Your task to perform on an android device: Clear the cart on bestbuy.com. Add "logitech g933" to the cart on bestbuy.com Image 0: 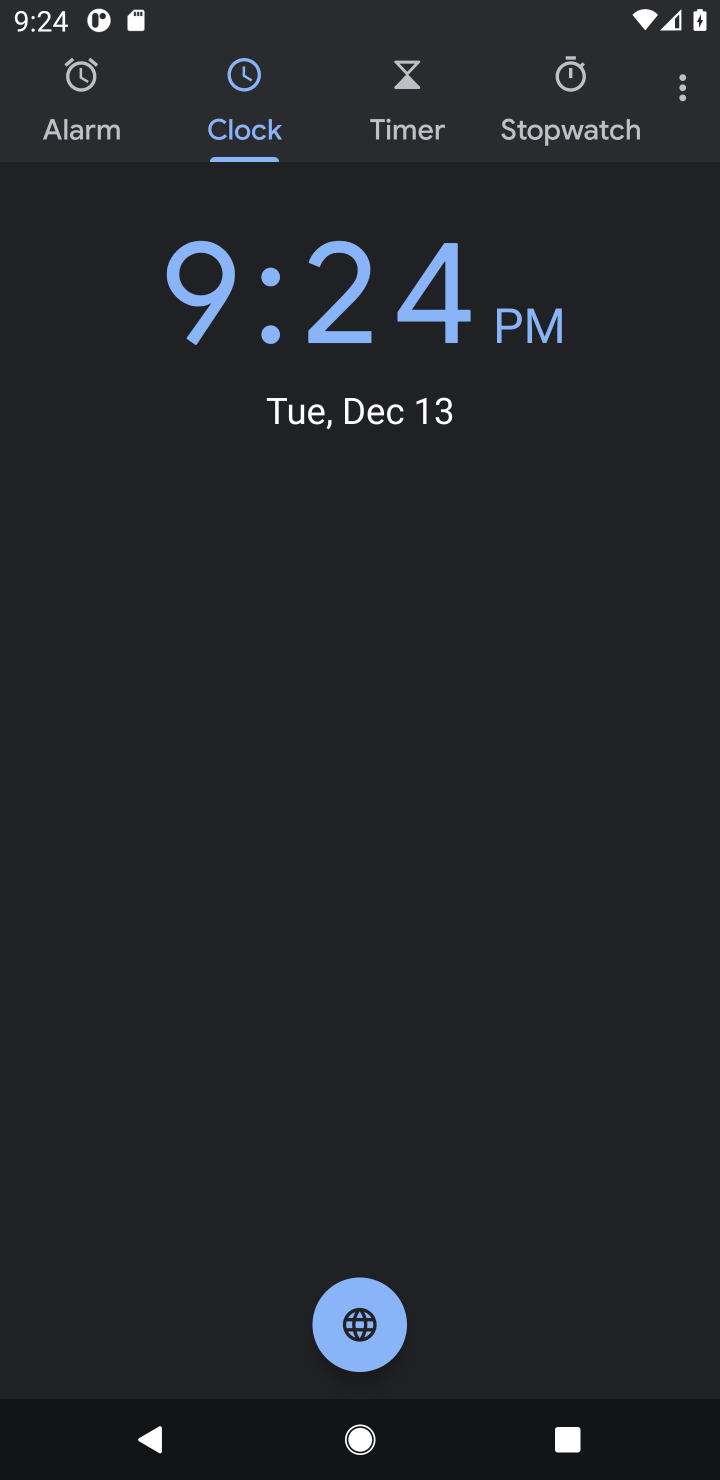
Step 0: press home button
Your task to perform on an android device: Clear the cart on bestbuy.com. Add "logitech g933" to the cart on bestbuy.com Image 1: 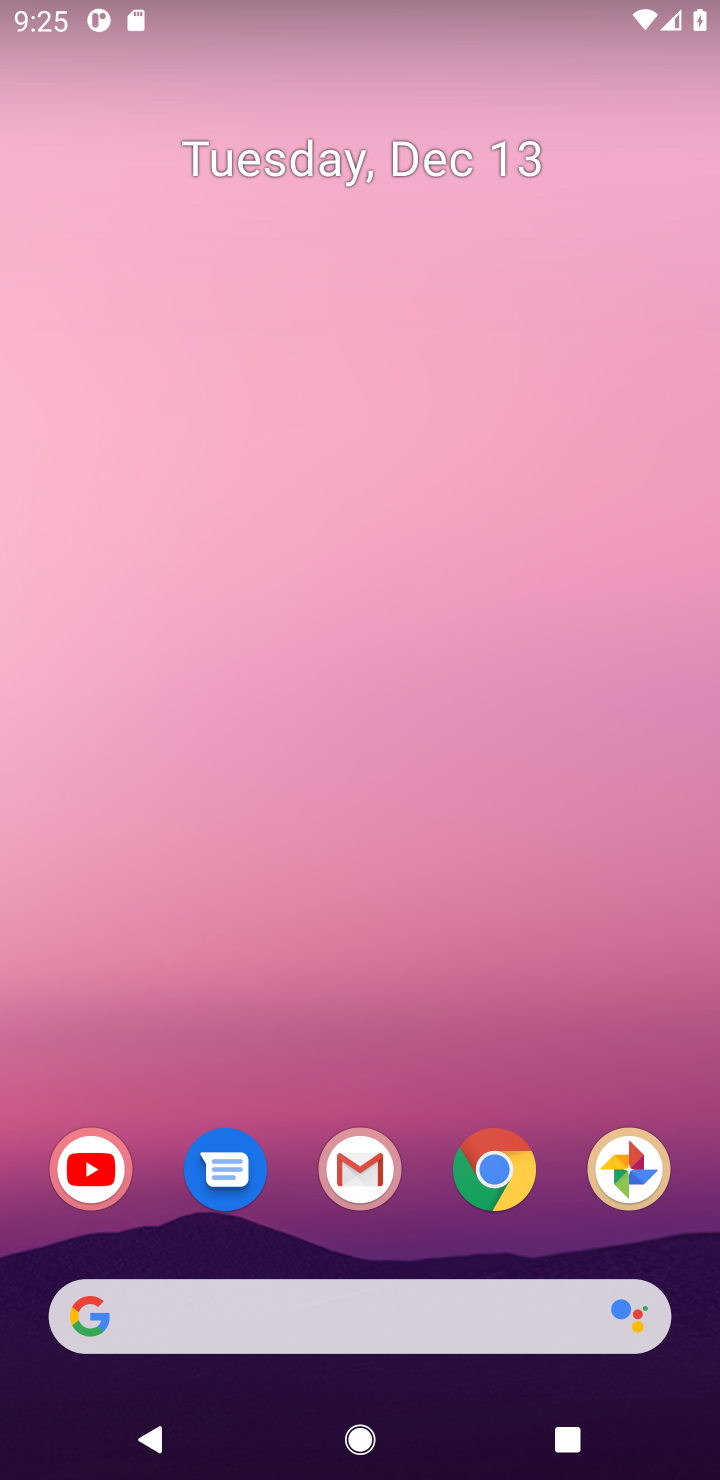
Step 1: click (509, 1167)
Your task to perform on an android device: Clear the cart on bestbuy.com. Add "logitech g933" to the cart on bestbuy.com Image 2: 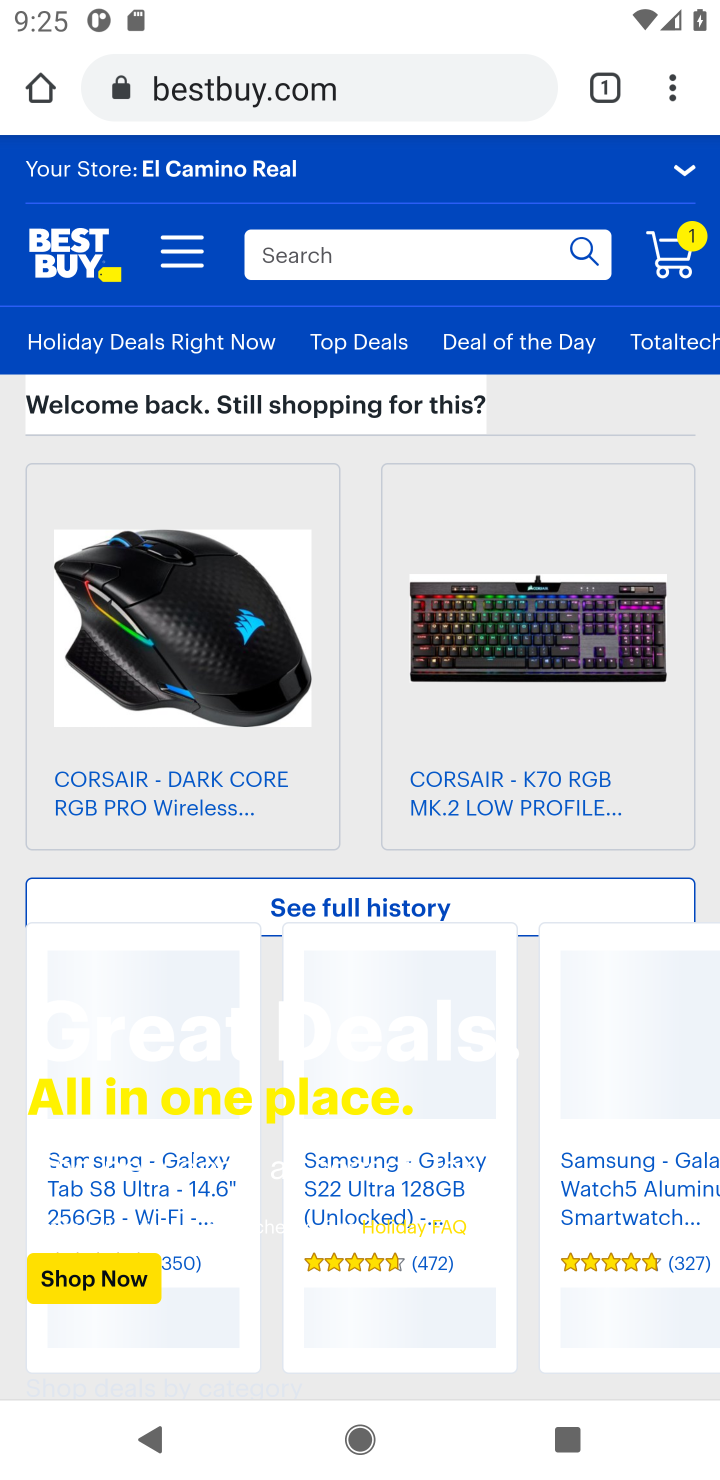
Step 2: click (324, 249)
Your task to perform on an android device: Clear the cart on bestbuy.com. Add "logitech g933" to the cart on bestbuy.com Image 3: 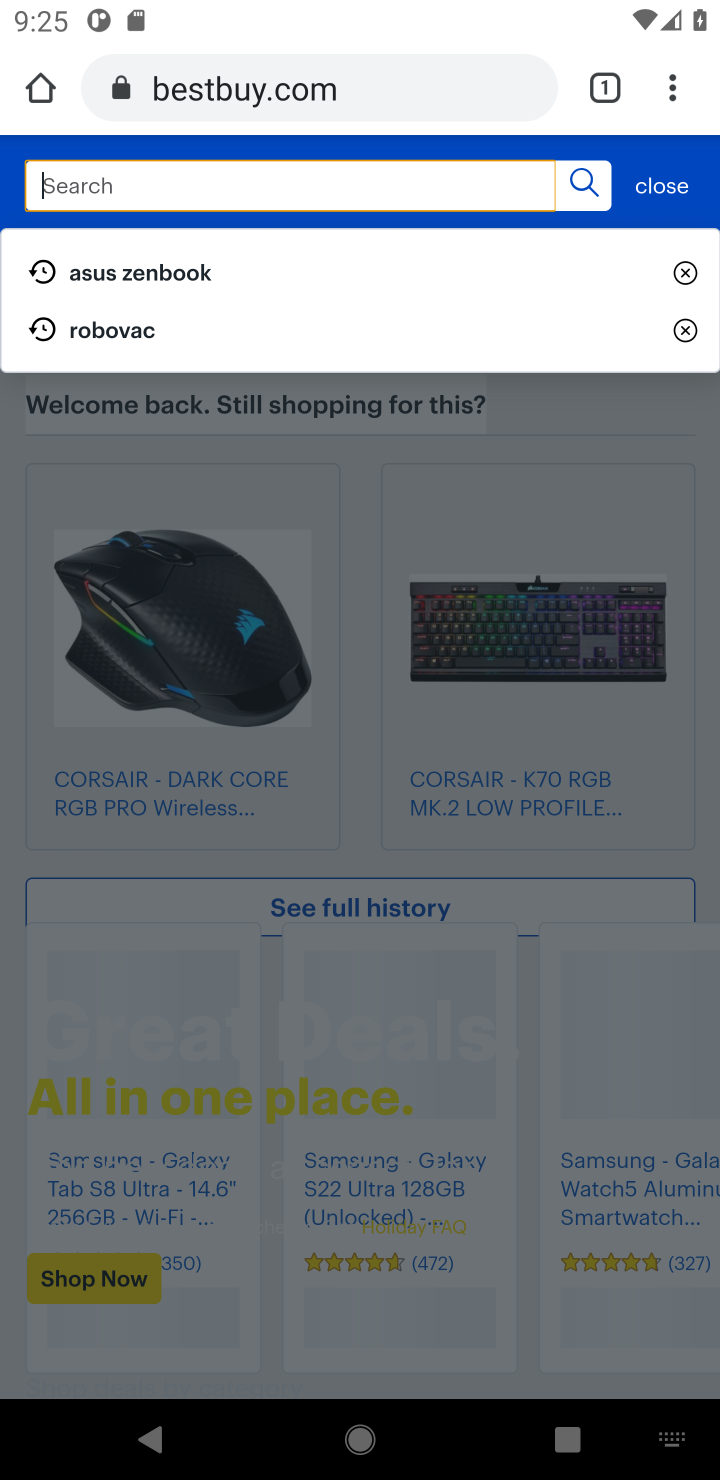
Step 3: type "logitech g933"
Your task to perform on an android device: Clear the cart on bestbuy.com. Add "logitech g933" to the cart on bestbuy.com Image 4: 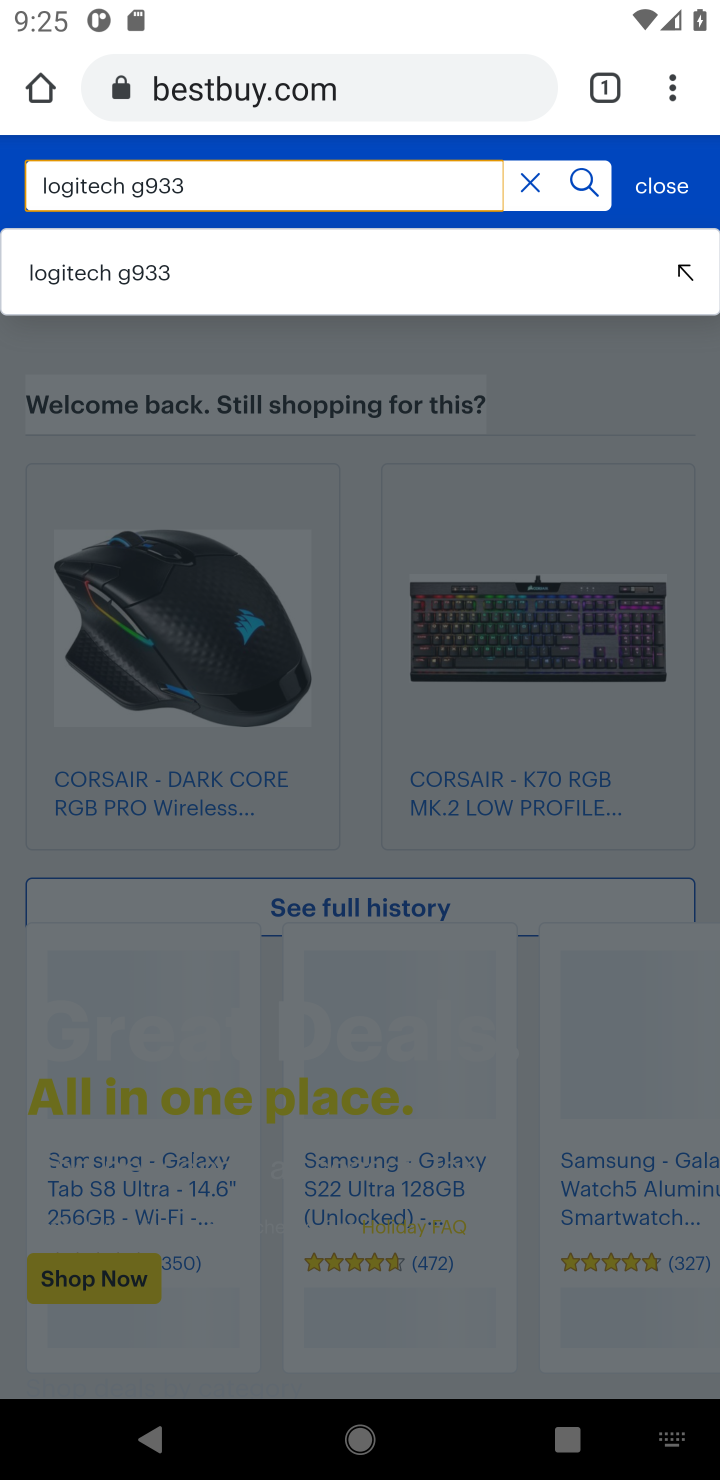
Step 4: click (592, 182)
Your task to perform on an android device: Clear the cart on bestbuy.com. Add "logitech g933" to the cart on bestbuy.com Image 5: 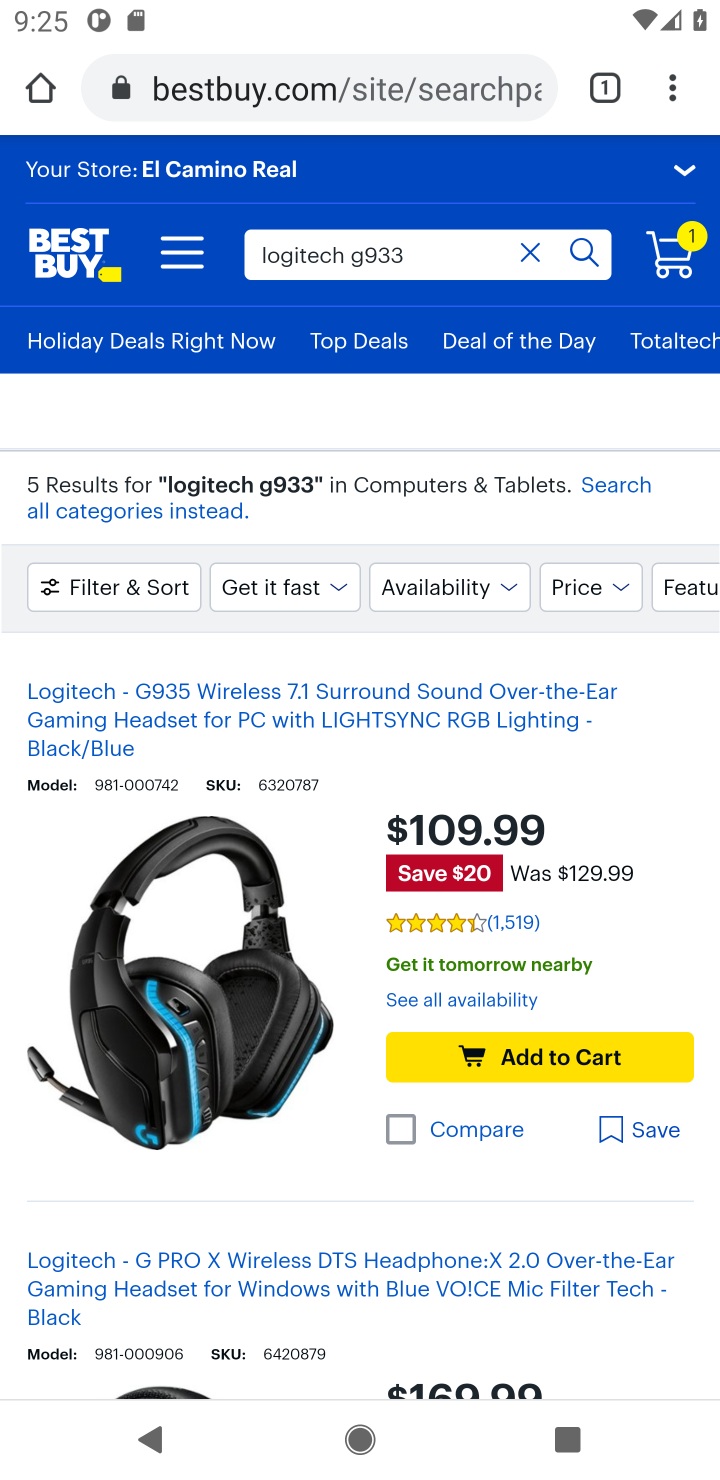
Step 5: click (472, 1041)
Your task to perform on an android device: Clear the cart on bestbuy.com. Add "logitech g933" to the cart on bestbuy.com Image 6: 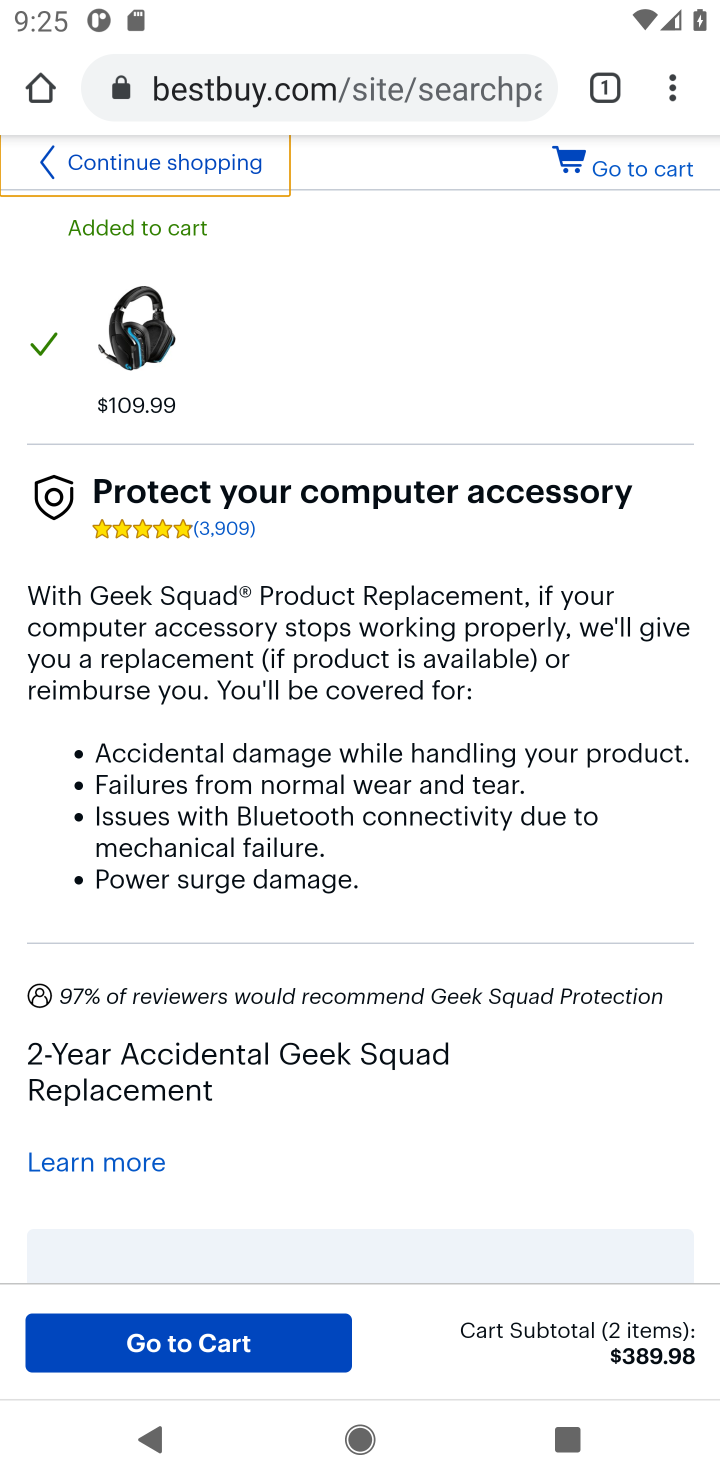
Step 6: task complete